Your task to perform on an android device: move an email to a new category in the gmail app Image 0: 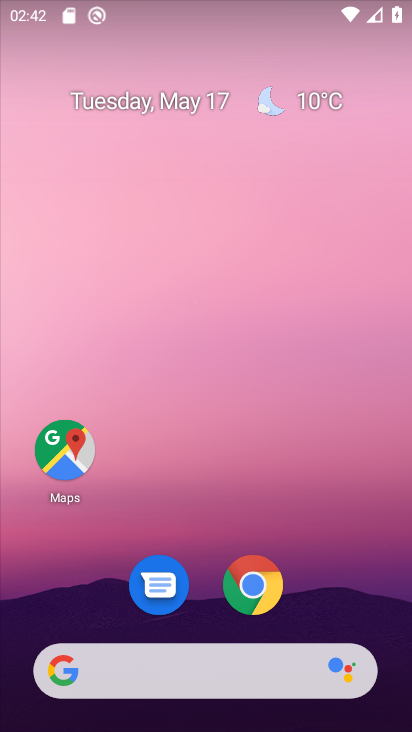
Step 0: drag from (257, 495) to (271, 49)
Your task to perform on an android device: move an email to a new category in the gmail app Image 1: 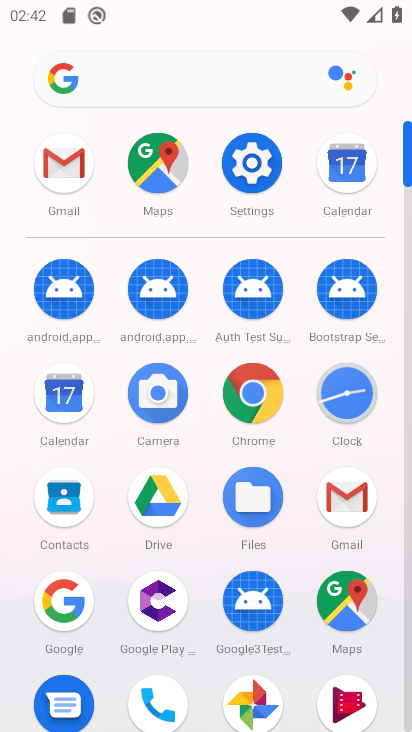
Step 1: click (64, 165)
Your task to perform on an android device: move an email to a new category in the gmail app Image 2: 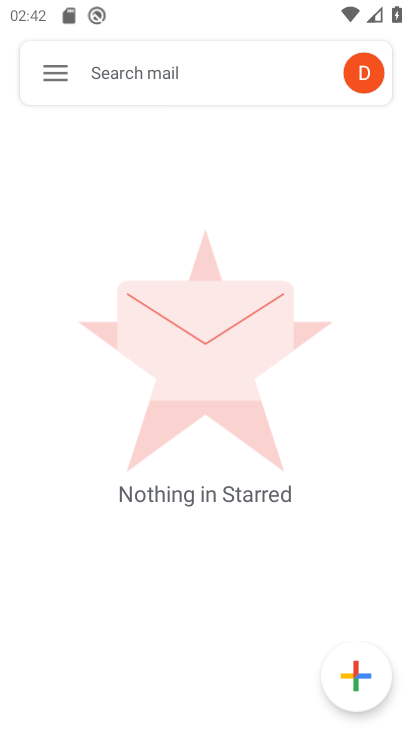
Step 2: click (52, 67)
Your task to perform on an android device: move an email to a new category in the gmail app Image 3: 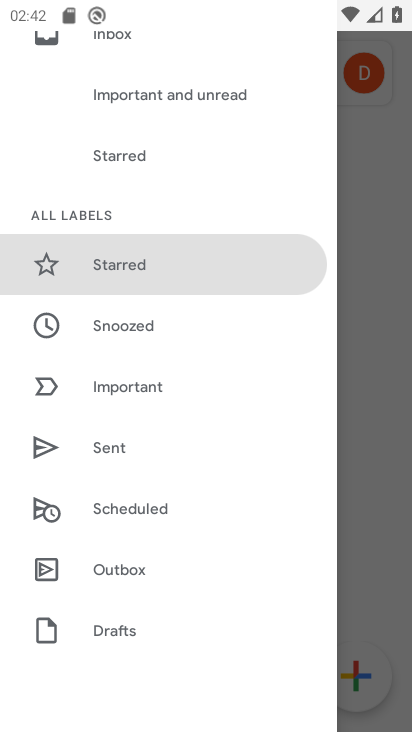
Step 3: drag from (226, 471) to (202, 236)
Your task to perform on an android device: move an email to a new category in the gmail app Image 4: 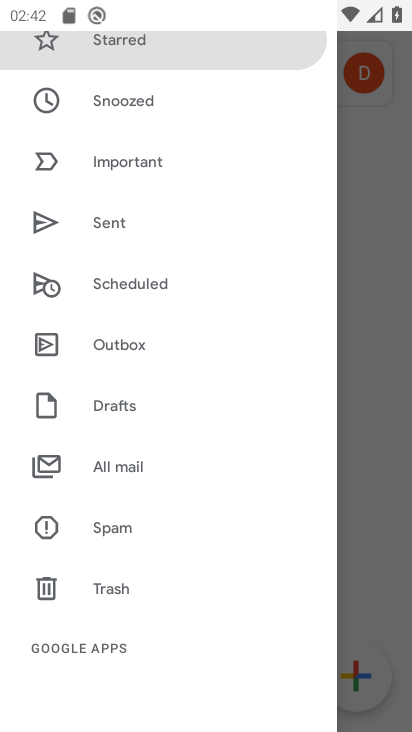
Step 4: click (147, 467)
Your task to perform on an android device: move an email to a new category in the gmail app Image 5: 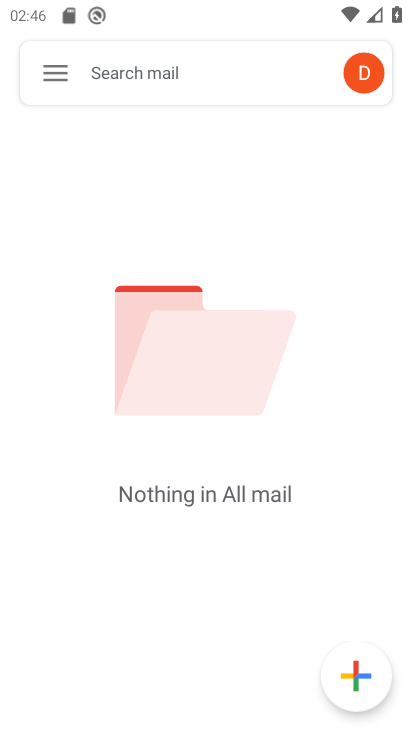
Step 5: task complete